Your task to perform on an android device: remove spam from my inbox in the gmail app Image 0: 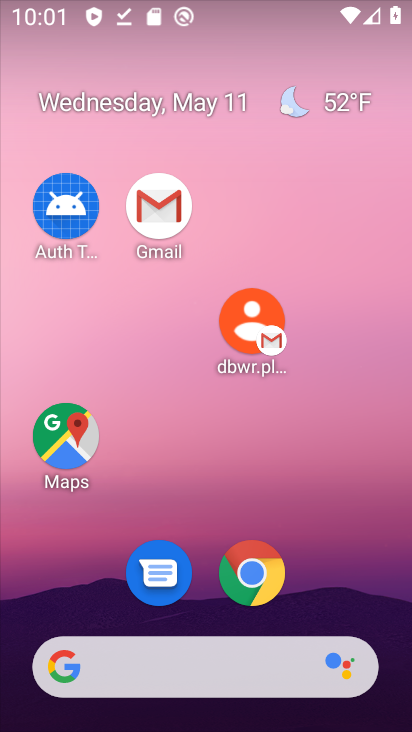
Step 0: drag from (355, 680) to (138, 24)
Your task to perform on an android device: remove spam from my inbox in the gmail app Image 1: 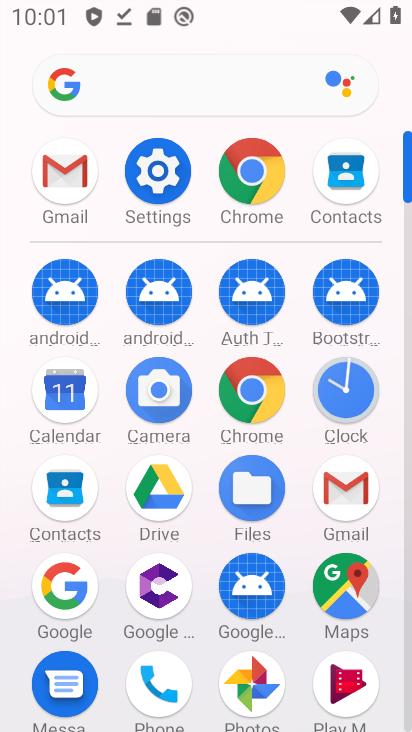
Step 1: click (338, 485)
Your task to perform on an android device: remove spam from my inbox in the gmail app Image 2: 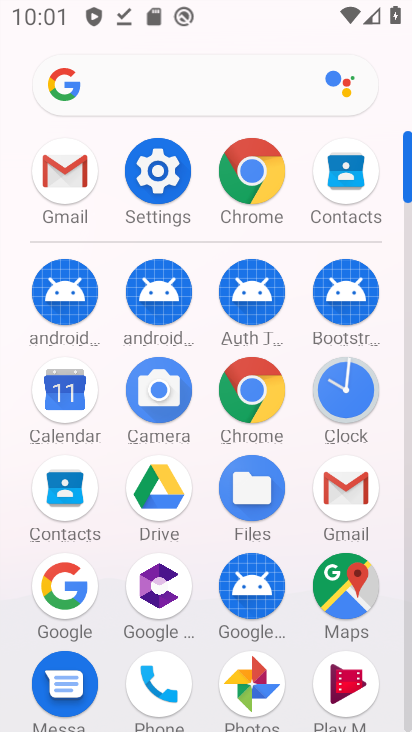
Step 2: click (334, 486)
Your task to perform on an android device: remove spam from my inbox in the gmail app Image 3: 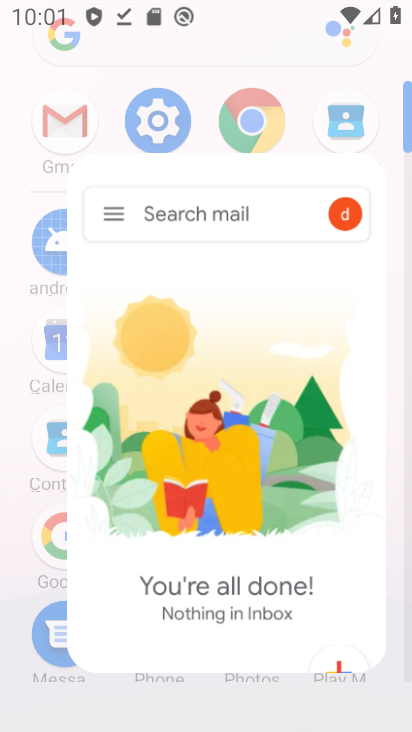
Step 3: click (336, 494)
Your task to perform on an android device: remove spam from my inbox in the gmail app Image 4: 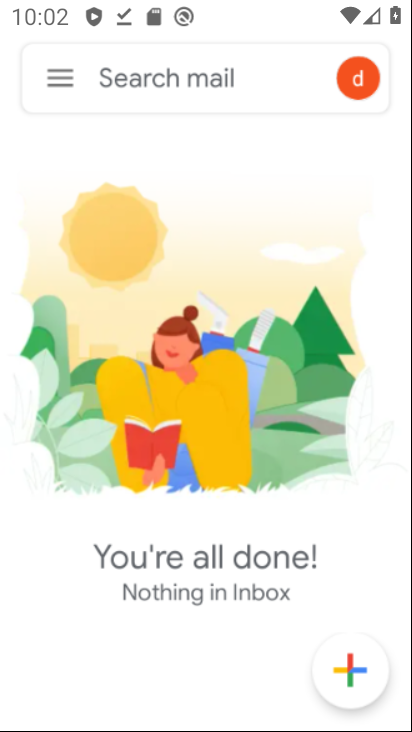
Step 4: click (334, 486)
Your task to perform on an android device: remove spam from my inbox in the gmail app Image 5: 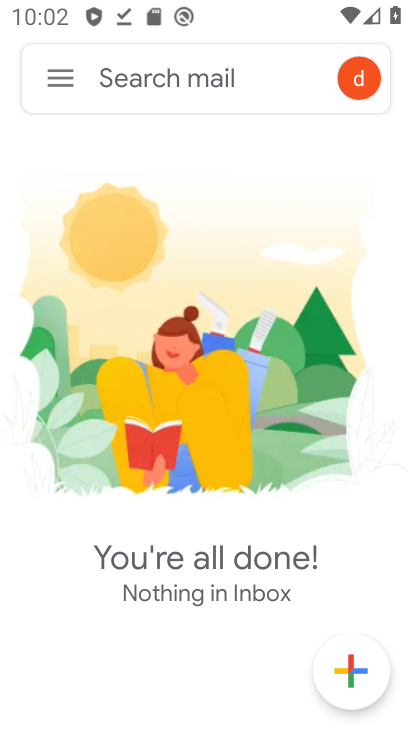
Step 5: click (50, 79)
Your task to perform on an android device: remove spam from my inbox in the gmail app Image 6: 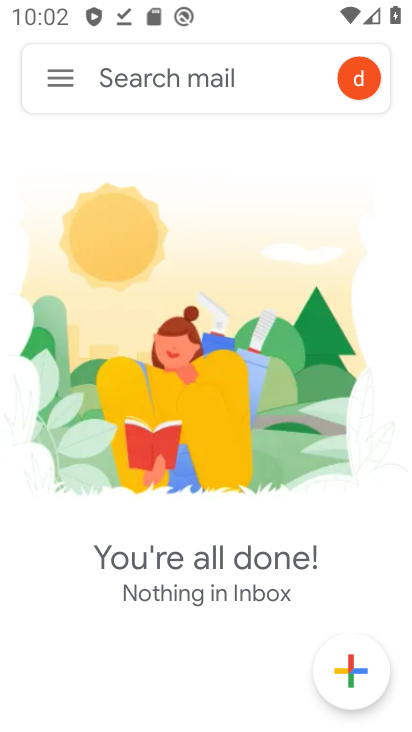
Step 6: drag from (51, 80) to (367, 177)
Your task to perform on an android device: remove spam from my inbox in the gmail app Image 7: 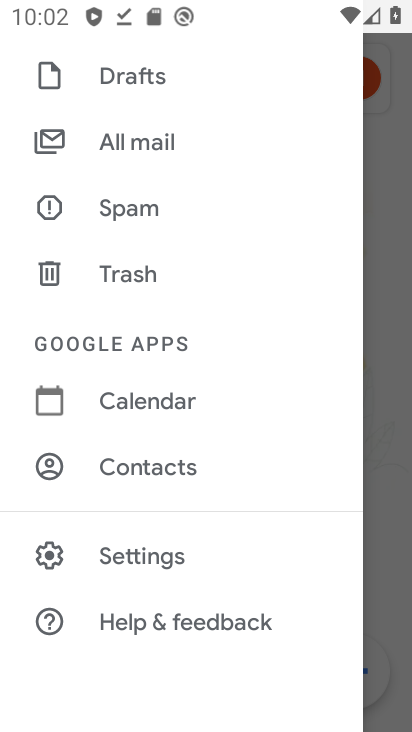
Step 7: click (120, 143)
Your task to perform on an android device: remove spam from my inbox in the gmail app Image 8: 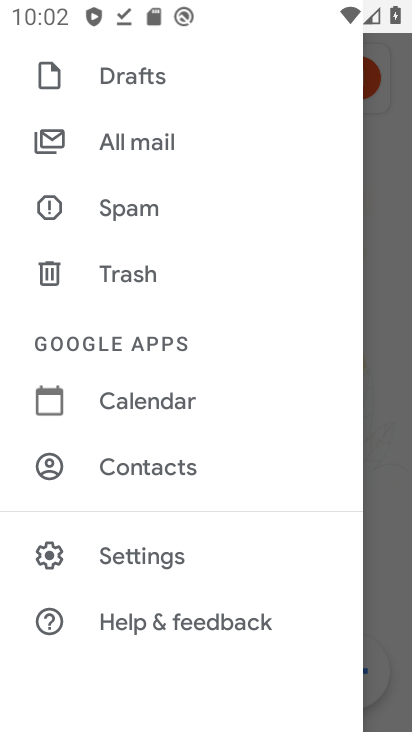
Step 8: click (117, 139)
Your task to perform on an android device: remove spam from my inbox in the gmail app Image 9: 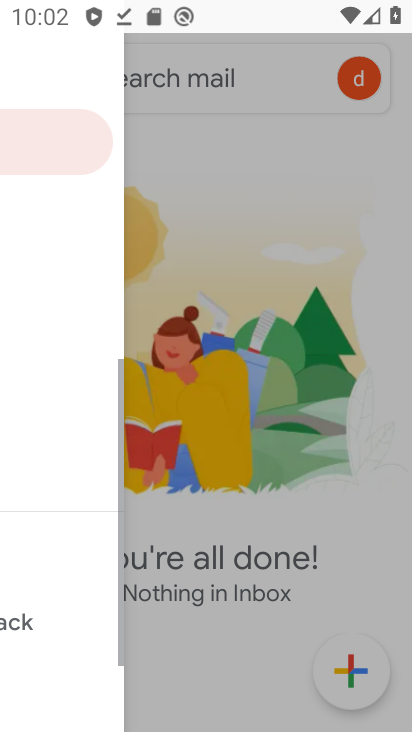
Step 9: click (118, 138)
Your task to perform on an android device: remove spam from my inbox in the gmail app Image 10: 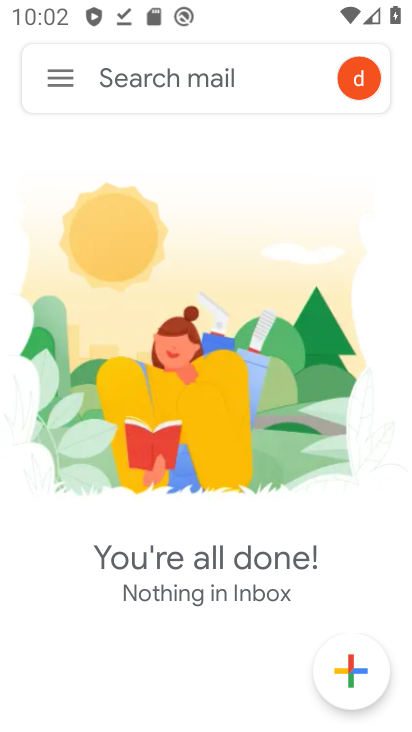
Step 10: click (118, 138)
Your task to perform on an android device: remove spam from my inbox in the gmail app Image 11: 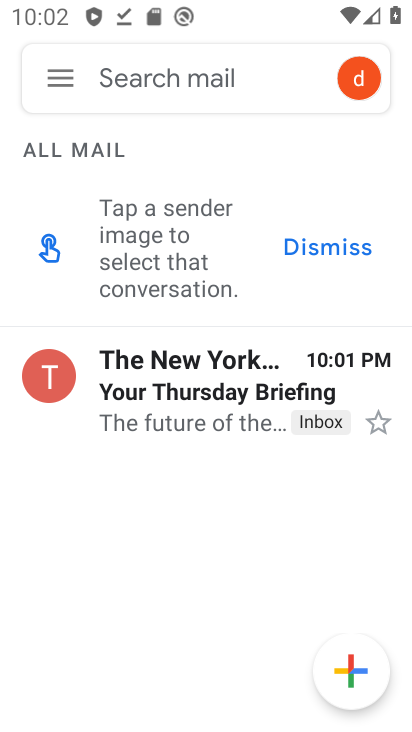
Step 11: click (244, 403)
Your task to perform on an android device: remove spam from my inbox in the gmail app Image 12: 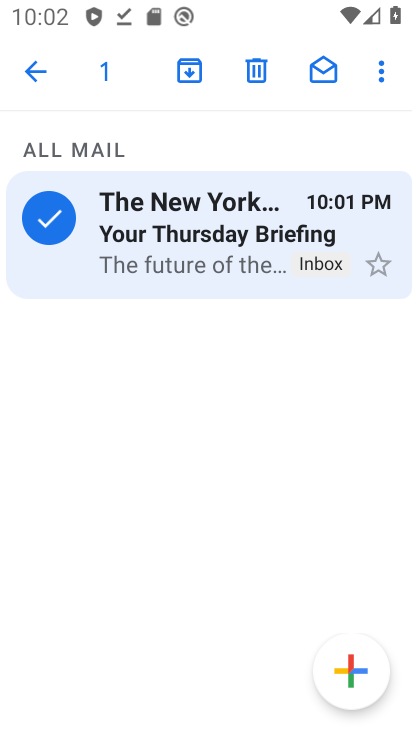
Step 12: click (249, 63)
Your task to perform on an android device: remove spam from my inbox in the gmail app Image 13: 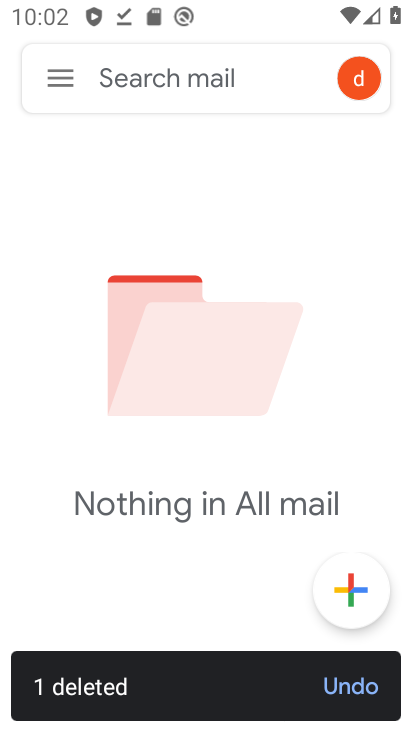
Step 13: task complete